Your task to perform on an android device: View the shopping cart on costco.com. Image 0: 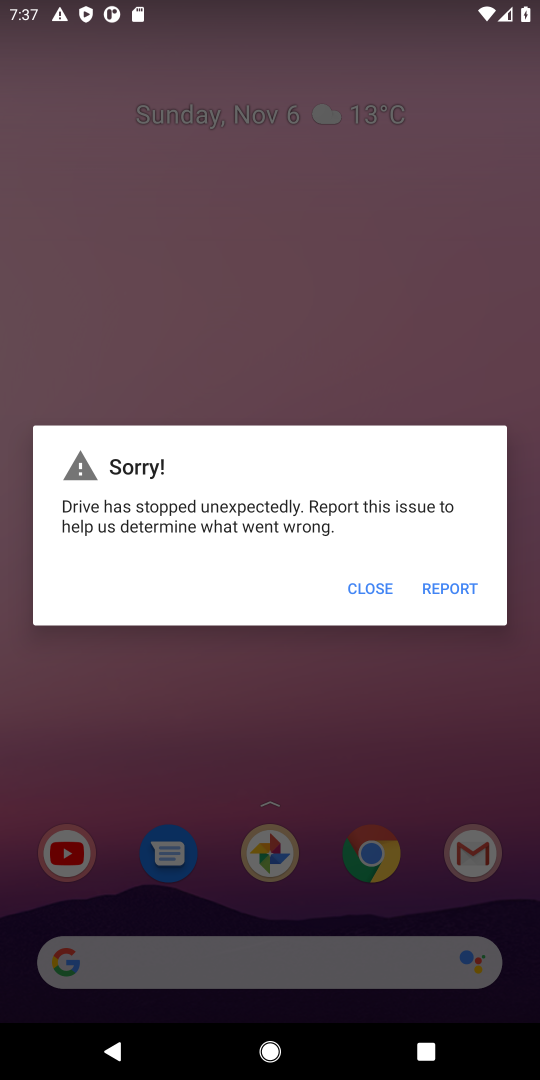
Step 0: press home button
Your task to perform on an android device: View the shopping cart on costco.com. Image 1: 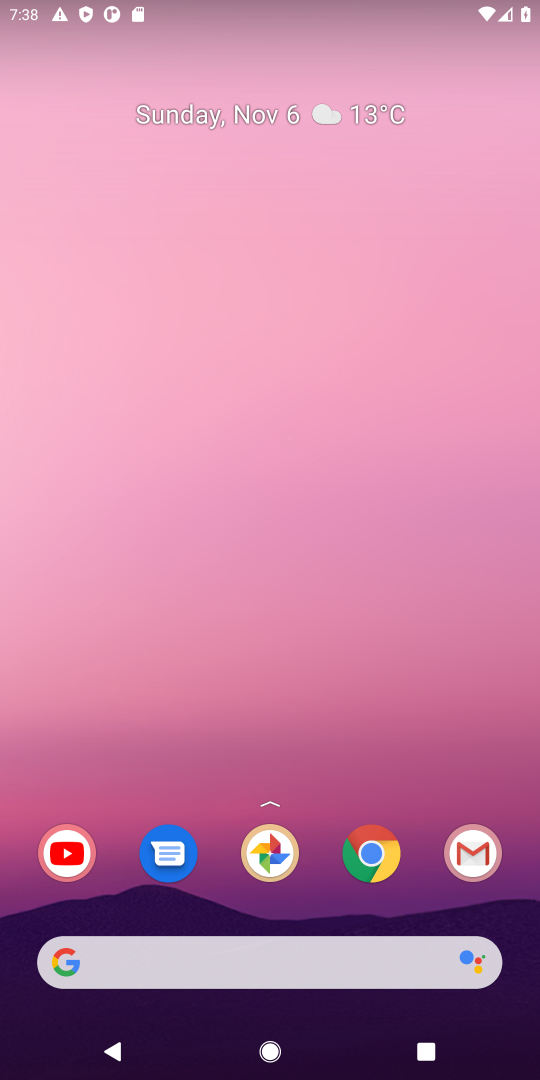
Step 1: click (371, 855)
Your task to perform on an android device: View the shopping cart on costco.com. Image 2: 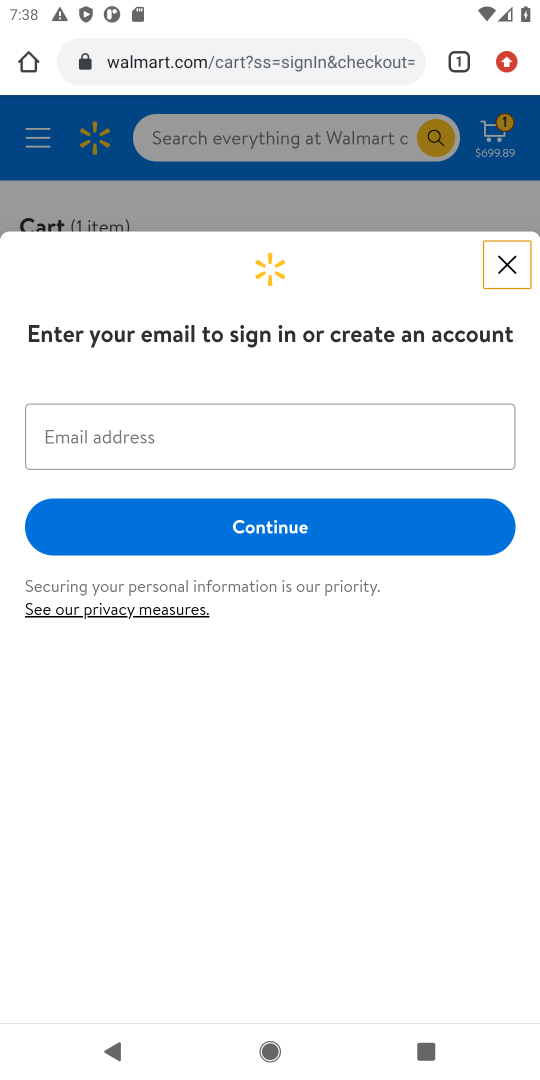
Step 2: click (312, 45)
Your task to perform on an android device: View the shopping cart on costco.com. Image 3: 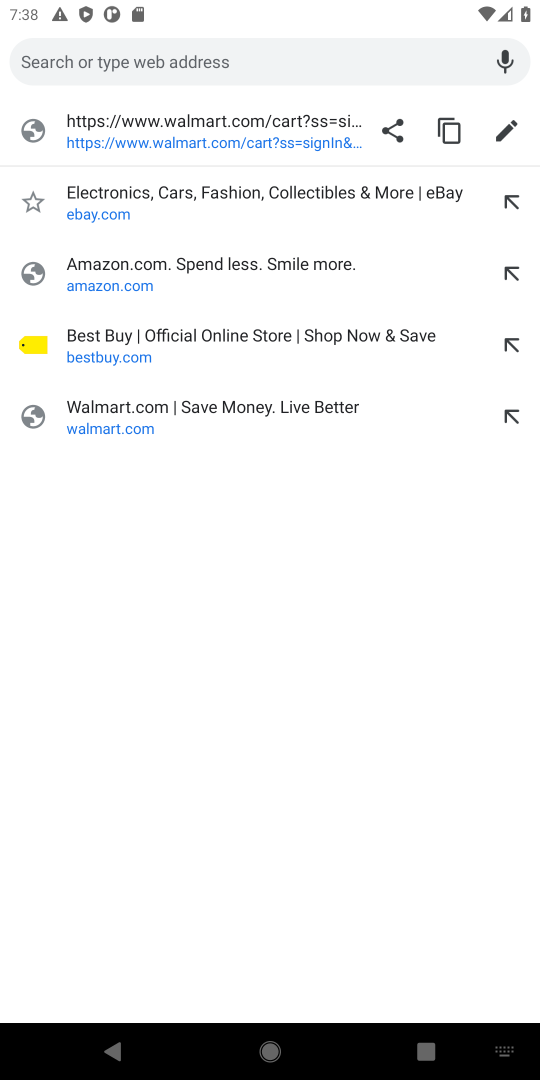
Step 3: type "costco"
Your task to perform on an android device: View the shopping cart on costco.com. Image 4: 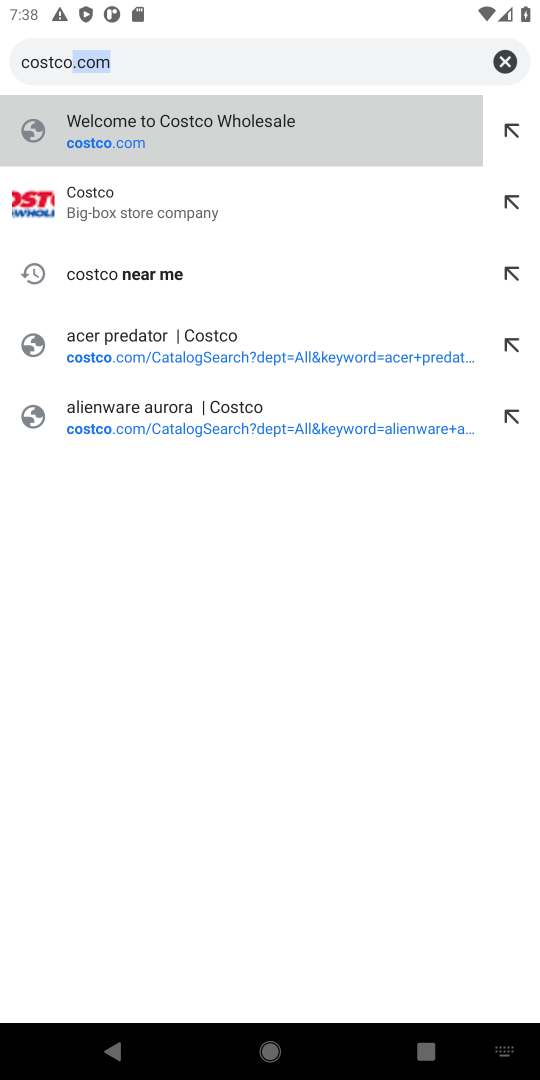
Step 4: click (88, 192)
Your task to perform on an android device: View the shopping cart on costco.com. Image 5: 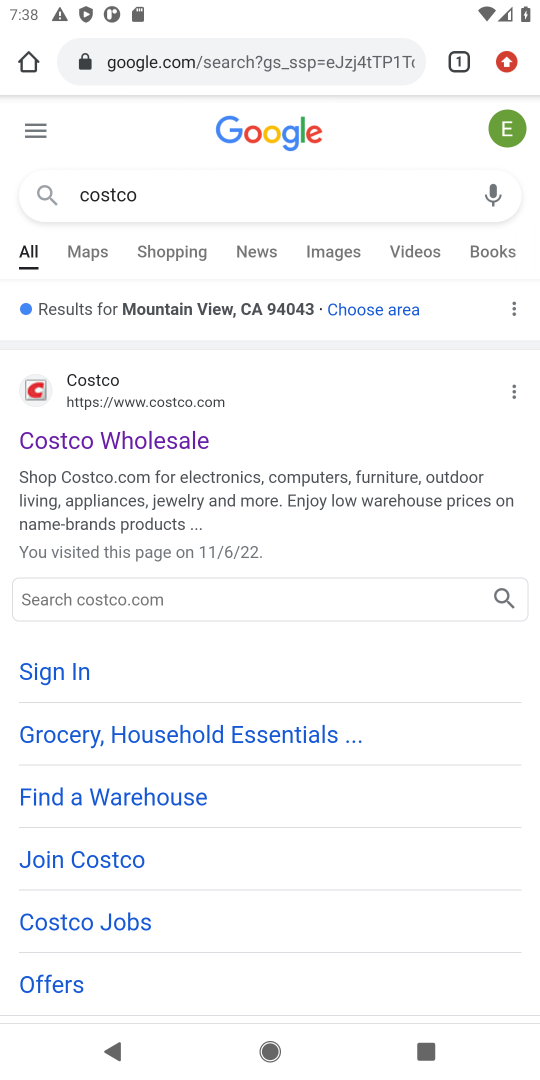
Step 5: click (107, 446)
Your task to perform on an android device: View the shopping cart on costco.com. Image 6: 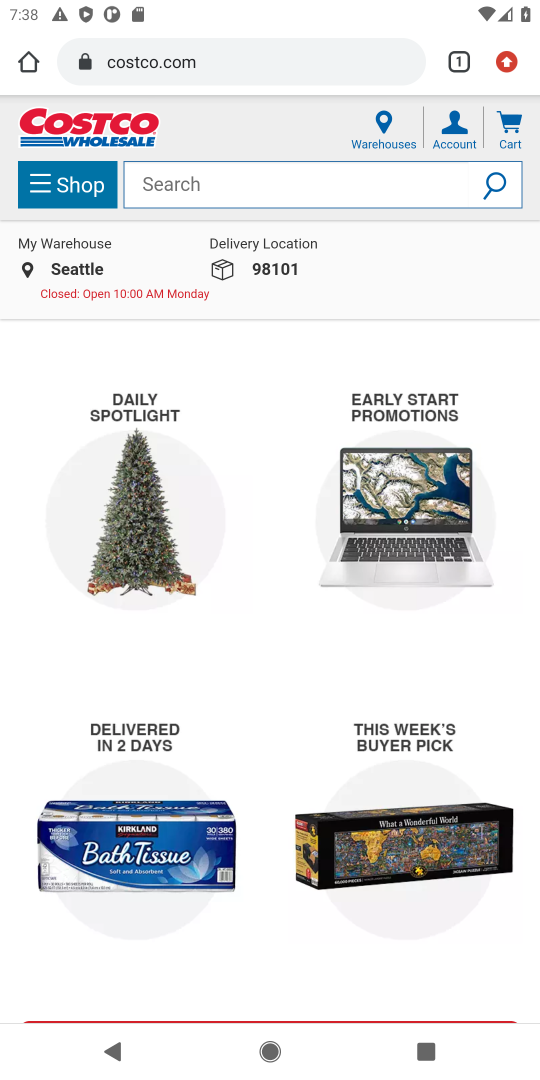
Step 6: click (507, 123)
Your task to perform on an android device: View the shopping cart on costco.com. Image 7: 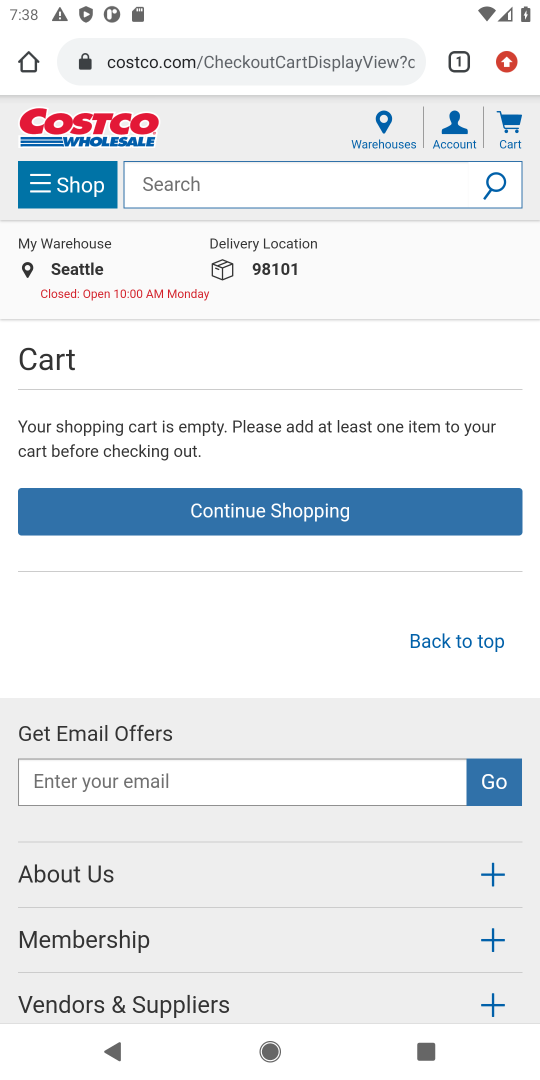
Step 7: task complete